Your task to perform on an android device: set an alarm Image 0: 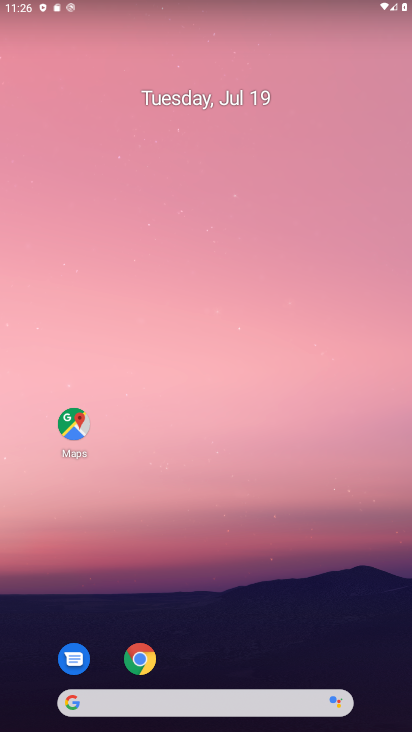
Step 0: press home button
Your task to perform on an android device: set an alarm Image 1: 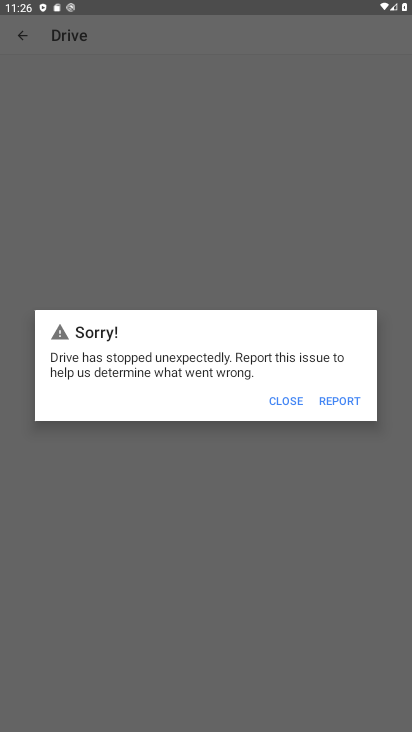
Step 1: drag from (221, 669) to (282, 26)
Your task to perform on an android device: set an alarm Image 2: 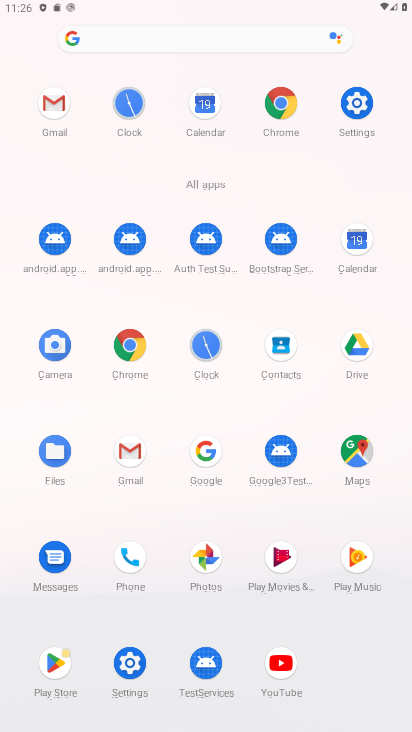
Step 2: click (204, 340)
Your task to perform on an android device: set an alarm Image 3: 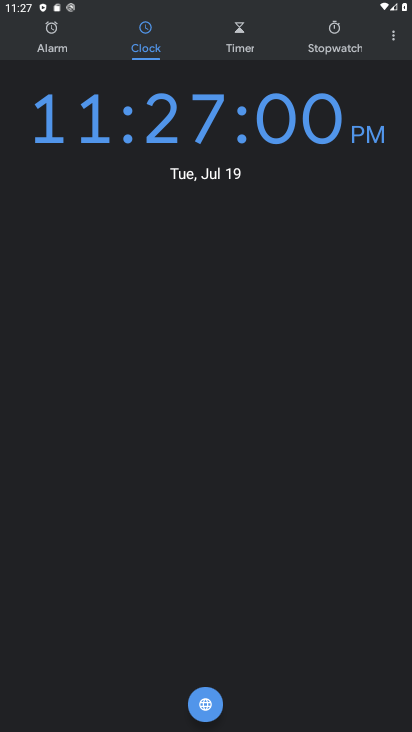
Step 3: click (54, 30)
Your task to perform on an android device: set an alarm Image 4: 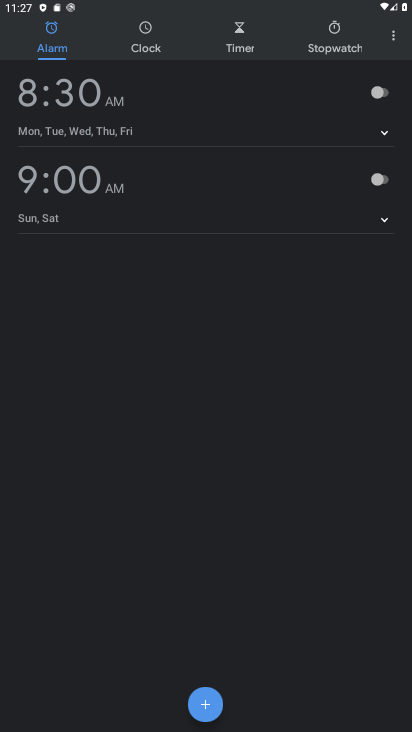
Step 4: click (383, 87)
Your task to perform on an android device: set an alarm Image 5: 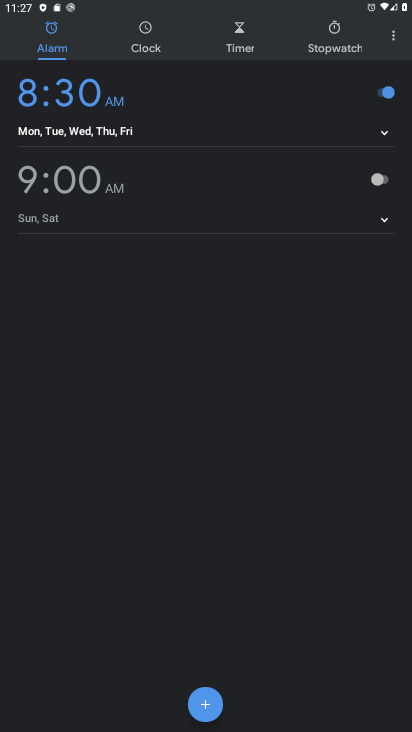
Step 5: click (382, 134)
Your task to perform on an android device: set an alarm Image 6: 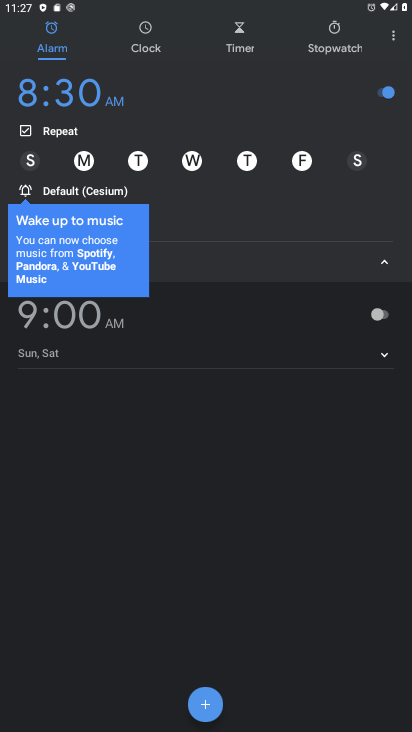
Step 6: task complete